Your task to perform on an android device: Open my contact list Image 0: 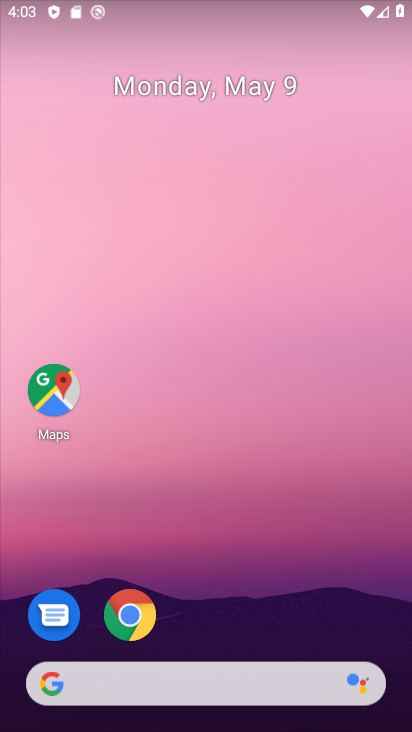
Step 0: drag from (216, 665) to (273, 211)
Your task to perform on an android device: Open my contact list Image 1: 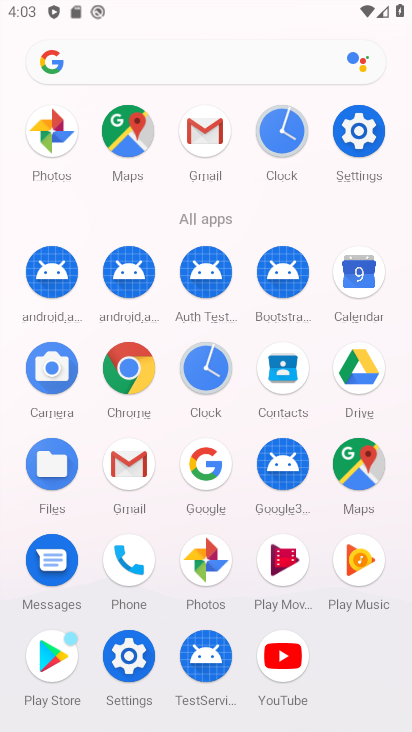
Step 1: click (290, 372)
Your task to perform on an android device: Open my contact list Image 2: 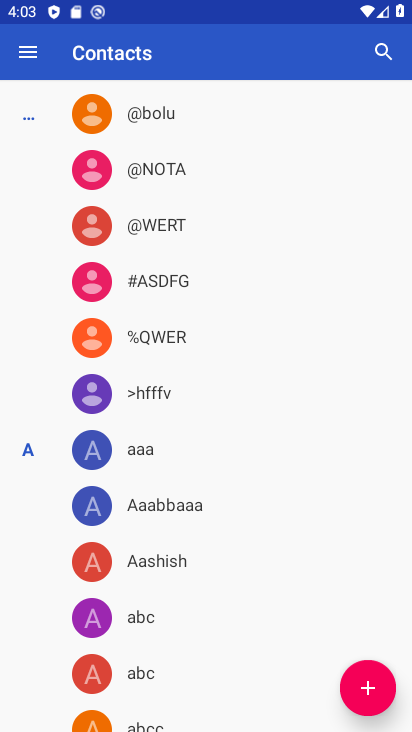
Step 2: task complete